Your task to perform on an android device: see creations saved in the google photos Image 0: 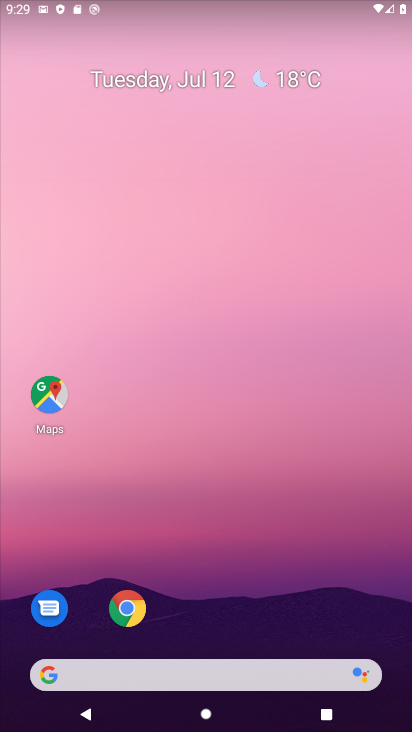
Step 0: drag from (266, 595) to (224, 129)
Your task to perform on an android device: see creations saved in the google photos Image 1: 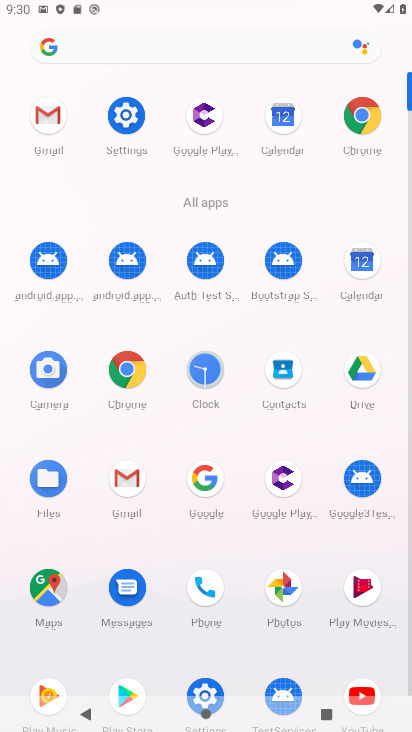
Step 1: click (282, 582)
Your task to perform on an android device: see creations saved in the google photos Image 2: 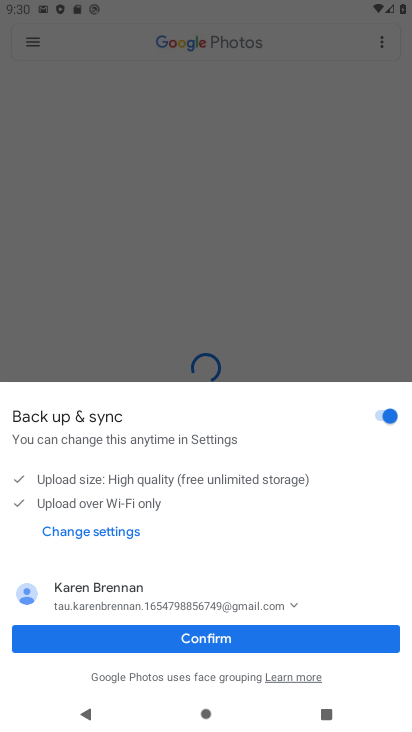
Step 2: click (205, 637)
Your task to perform on an android device: see creations saved in the google photos Image 3: 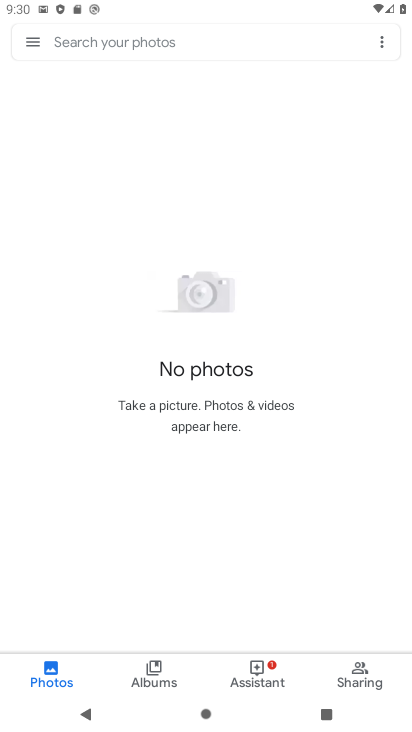
Step 3: click (110, 42)
Your task to perform on an android device: see creations saved in the google photos Image 4: 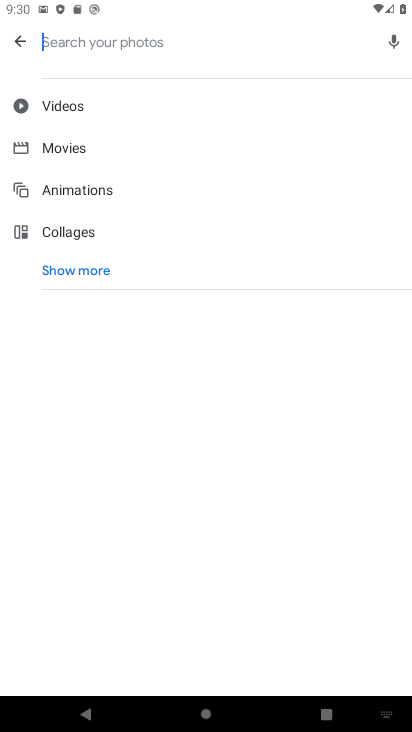
Step 4: click (74, 271)
Your task to perform on an android device: see creations saved in the google photos Image 5: 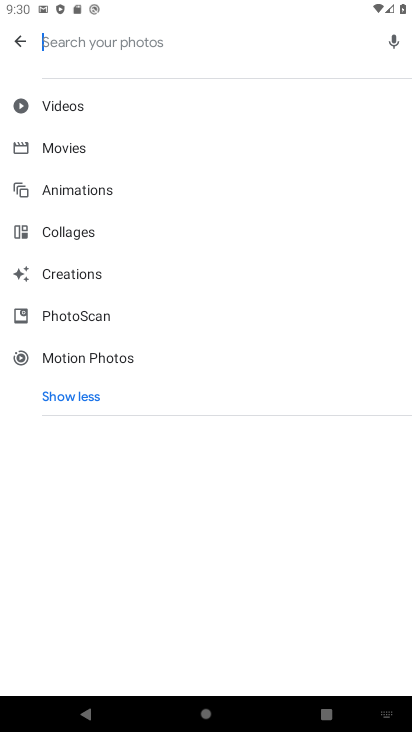
Step 5: click (67, 269)
Your task to perform on an android device: see creations saved in the google photos Image 6: 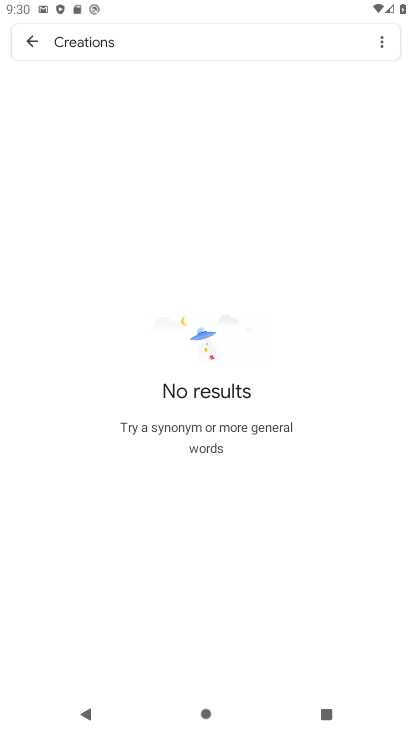
Step 6: task complete